Your task to perform on an android device: Go to wifi settings Image 0: 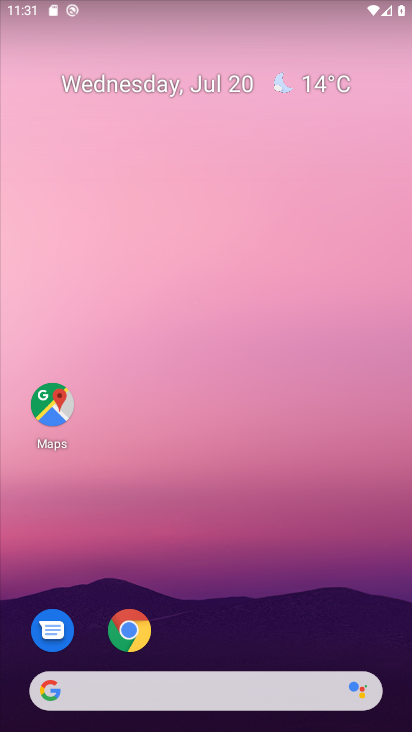
Step 0: drag from (218, 650) to (195, 118)
Your task to perform on an android device: Go to wifi settings Image 1: 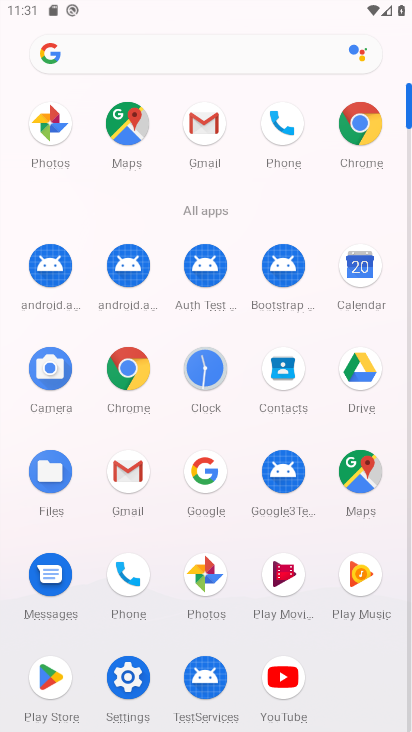
Step 1: click (124, 696)
Your task to perform on an android device: Go to wifi settings Image 2: 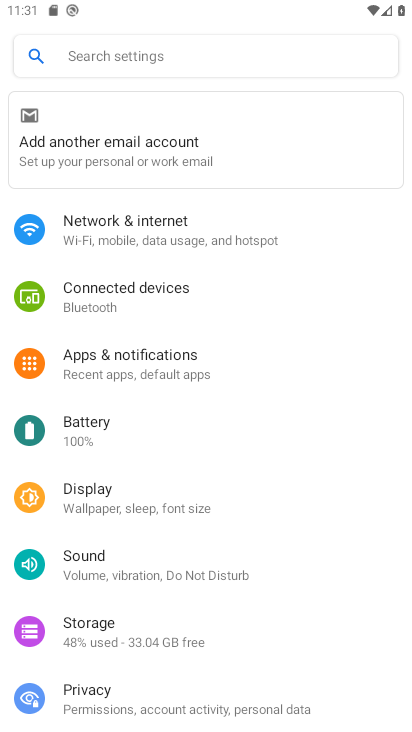
Step 2: click (158, 202)
Your task to perform on an android device: Go to wifi settings Image 3: 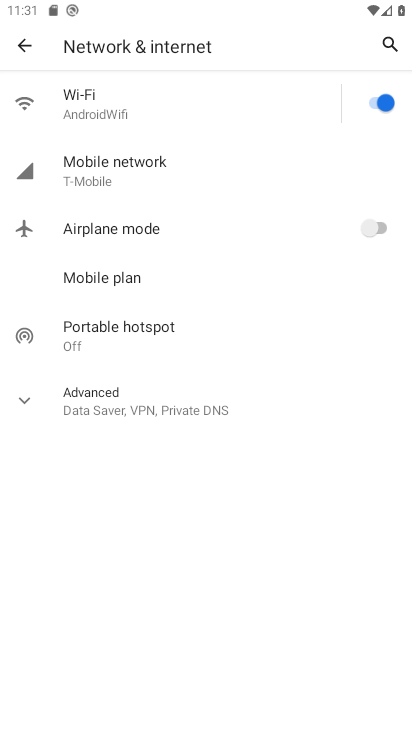
Step 3: click (108, 118)
Your task to perform on an android device: Go to wifi settings Image 4: 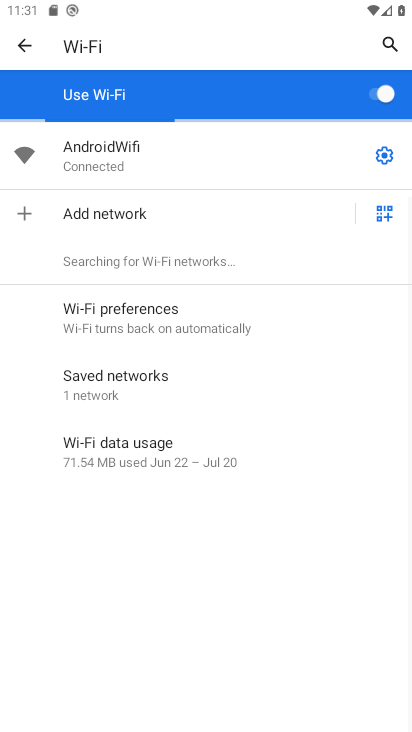
Step 4: task complete